Your task to perform on an android device: Open calendar and show me the first week of next month Image 0: 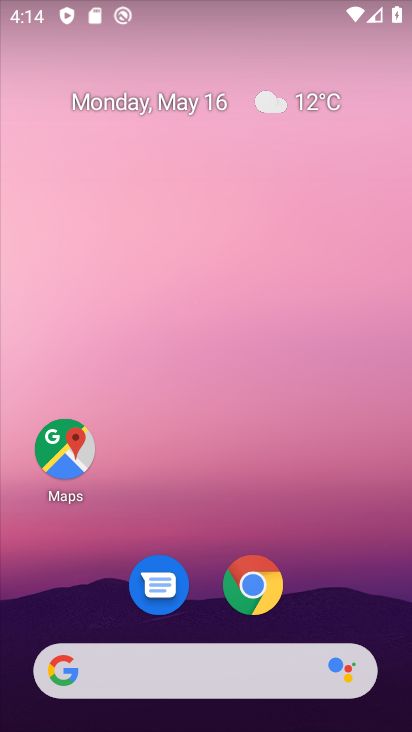
Step 0: drag from (341, 491) to (327, 88)
Your task to perform on an android device: Open calendar and show me the first week of next month Image 1: 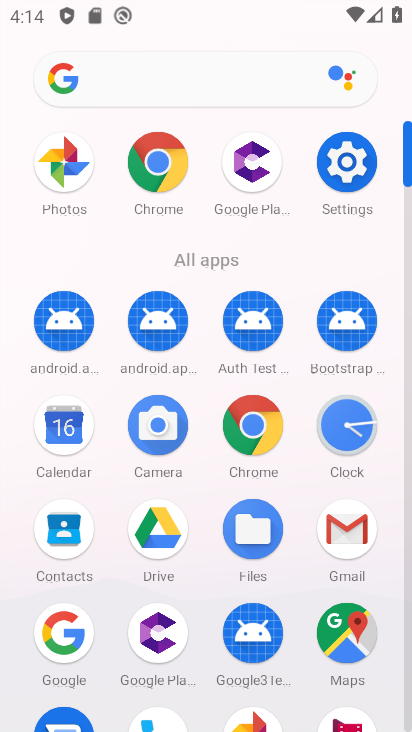
Step 1: click (73, 427)
Your task to perform on an android device: Open calendar and show me the first week of next month Image 2: 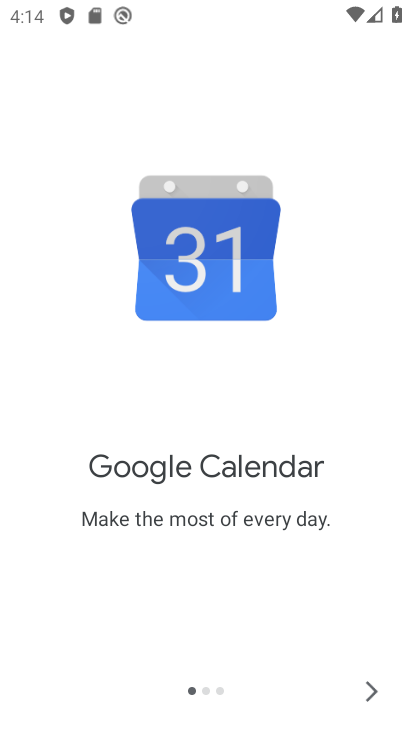
Step 2: click (362, 690)
Your task to perform on an android device: Open calendar and show me the first week of next month Image 3: 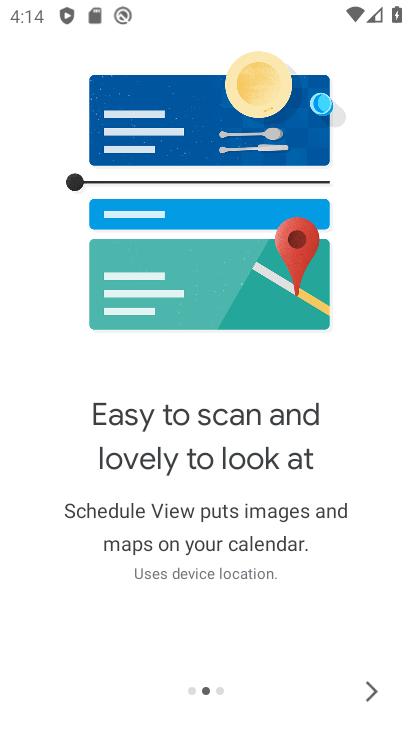
Step 3: click (362, 688)
Your task to perform on an android device: Open calendar and show me the first week of next month Image 4: 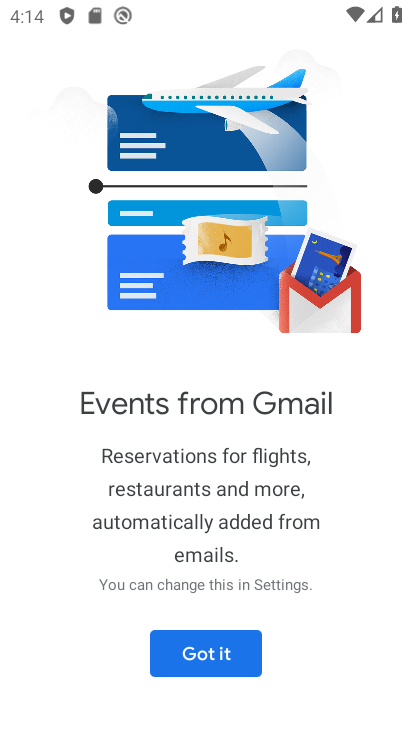
Step 4: click (252, 650)
Your task to perform on an android device: Open calendar and show me the first week of next month Image 5: 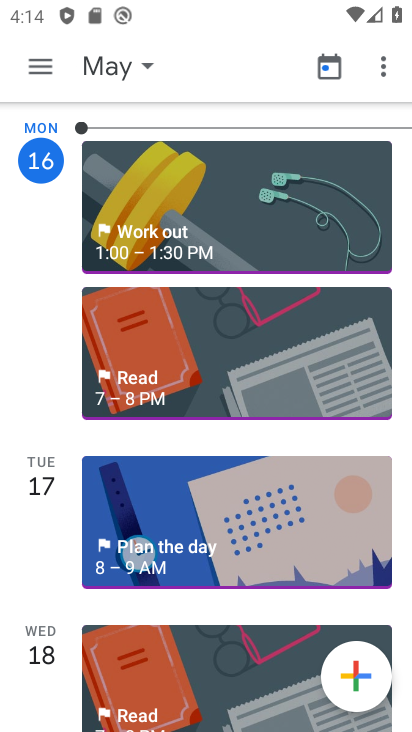
Step 5: click (40, 54)
Your task to perform on an android device: Open calendar and show me the first week of next month Image 6: 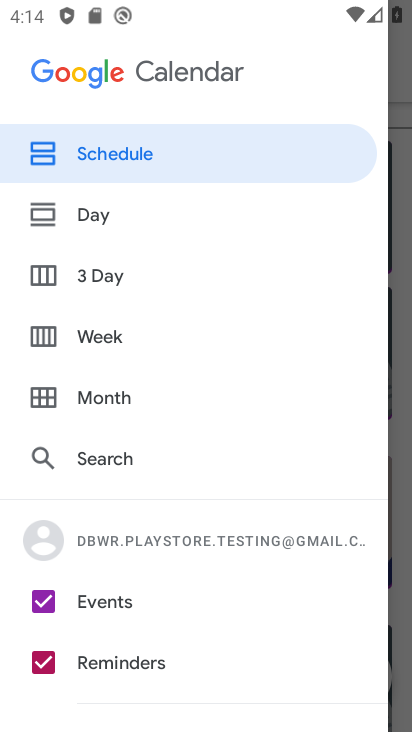
Step 6: click (125, 396)
Your task to perform on an android device: Open calendar and show me the first week of next month Image 7: 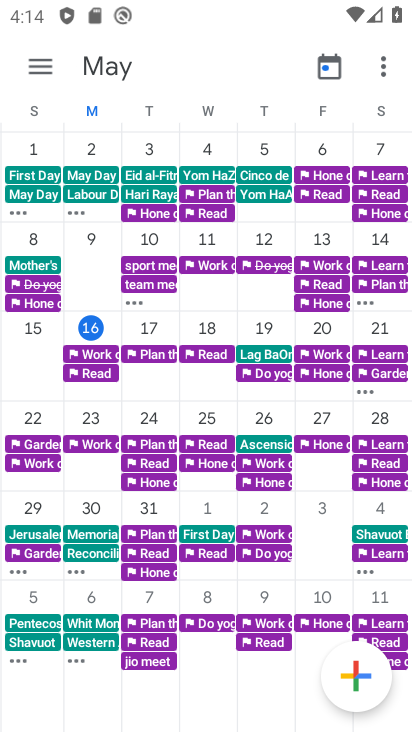
Step 7: drag from (377, 398) to (0, 317)
Your task to perform on an android device: Open calendar and show me the first week of next month Image 8: 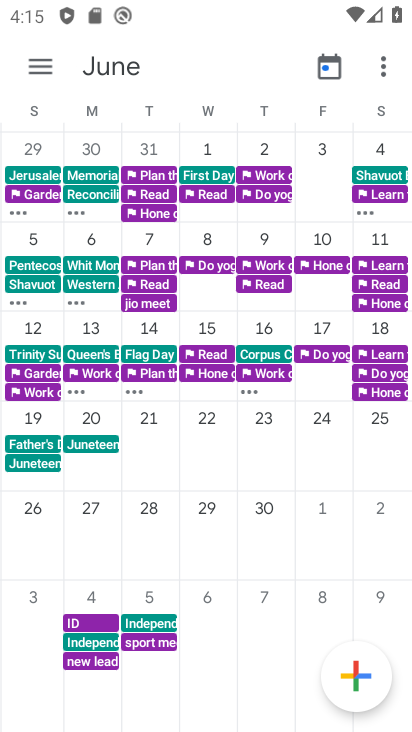
Step 8: click (38, 231)
Your task to perform on an android device: Open calendar and show me the first week of next month Image 9: 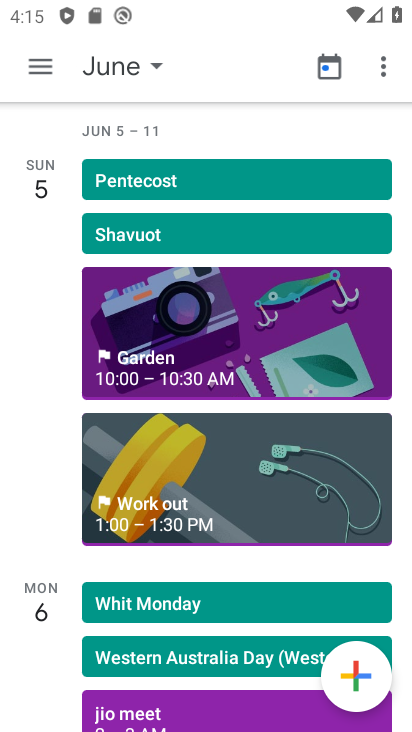
Step 9: click (34, 57)
Your task to perform on an android device: Open calendar and show me the first week of next month Image 10: 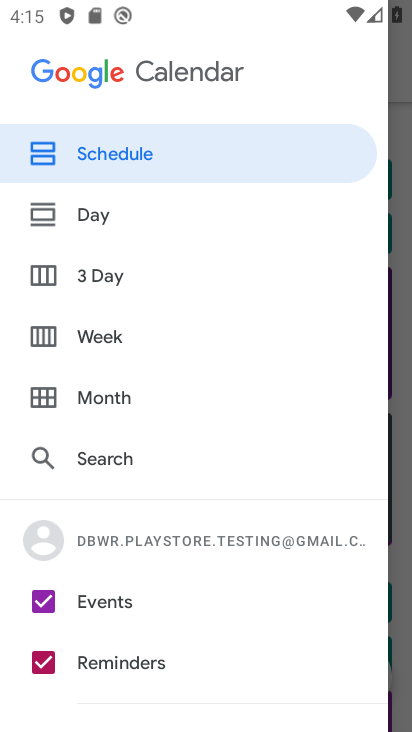
Step 10: click (56, 328)
Your task to perform on an android device: Open calendar and show me the first week of next month Image 11: 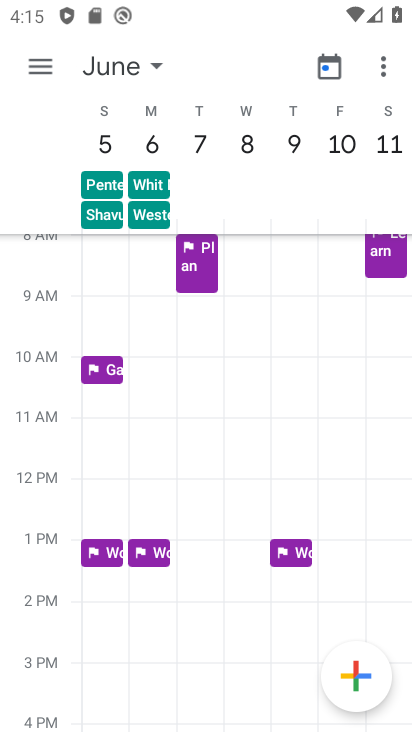
Step 11: task complete